Your task to perform on an android device: change the clock display to show seconds Image 0: 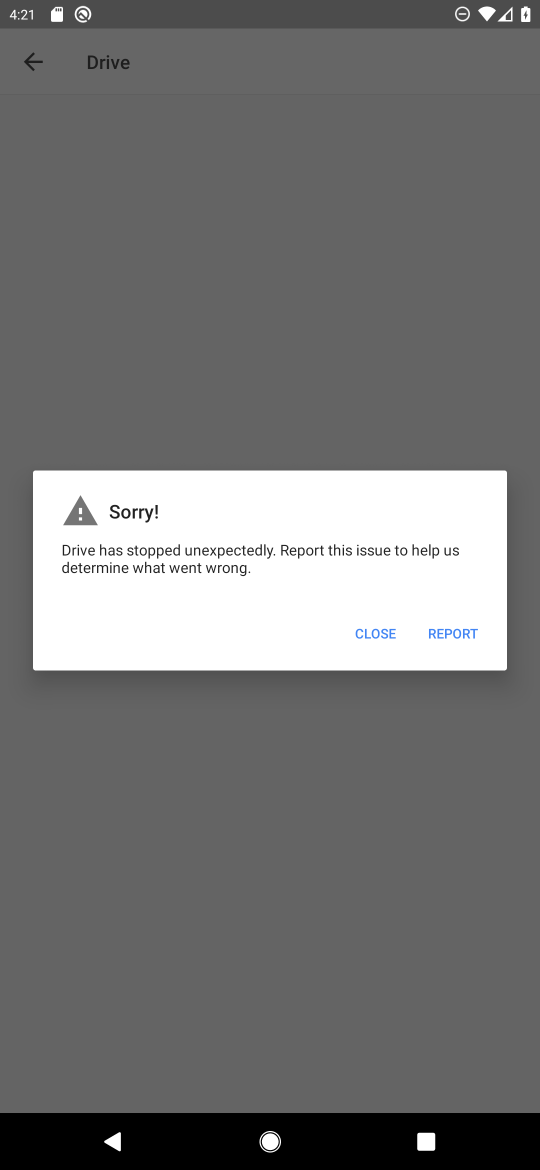
Step 0: press home button
Your task to perform on an android device: change the clock display to show seconds Image 1: 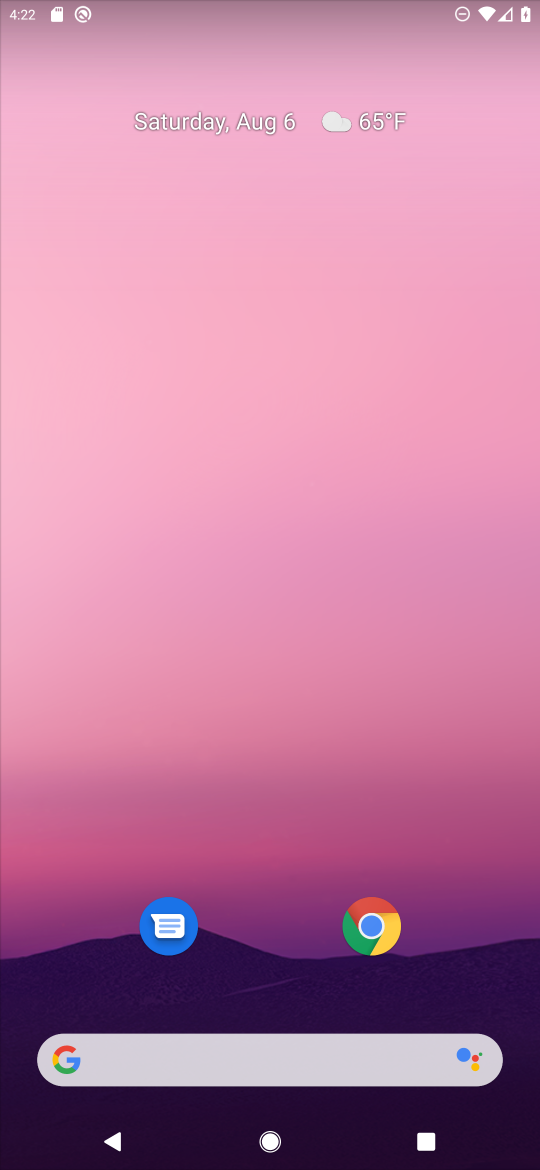
Step 1: drag from (259, 911) to (259, 437)
Your task to perform on an android device: change the clock display to show seconds Image 2: 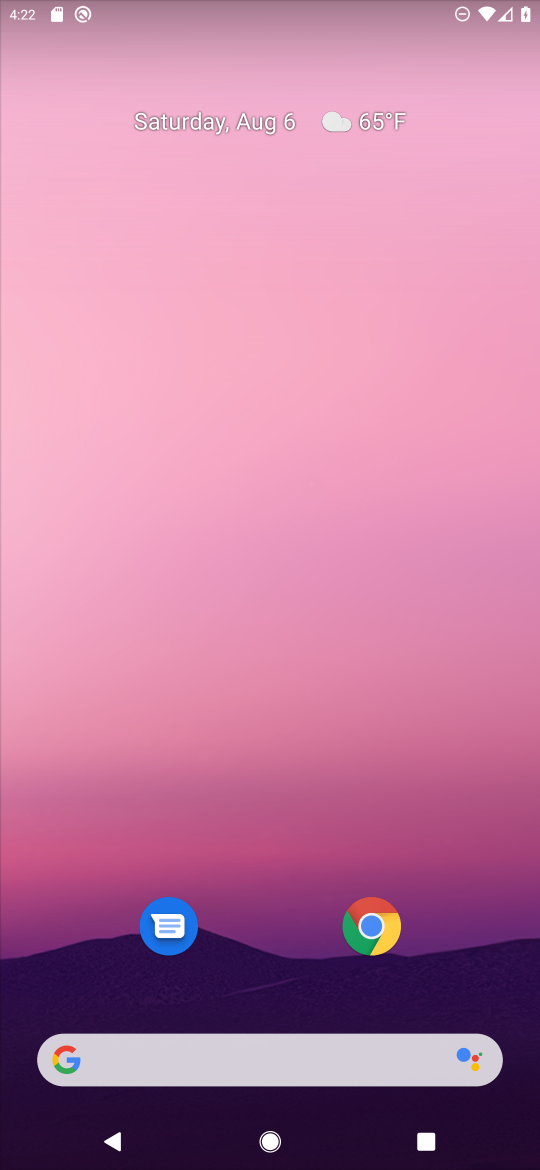
Step 2: drag from (248, 911) to (248, 254)
Your task to perform on an android device: change the clock display to show seconds Image 3: 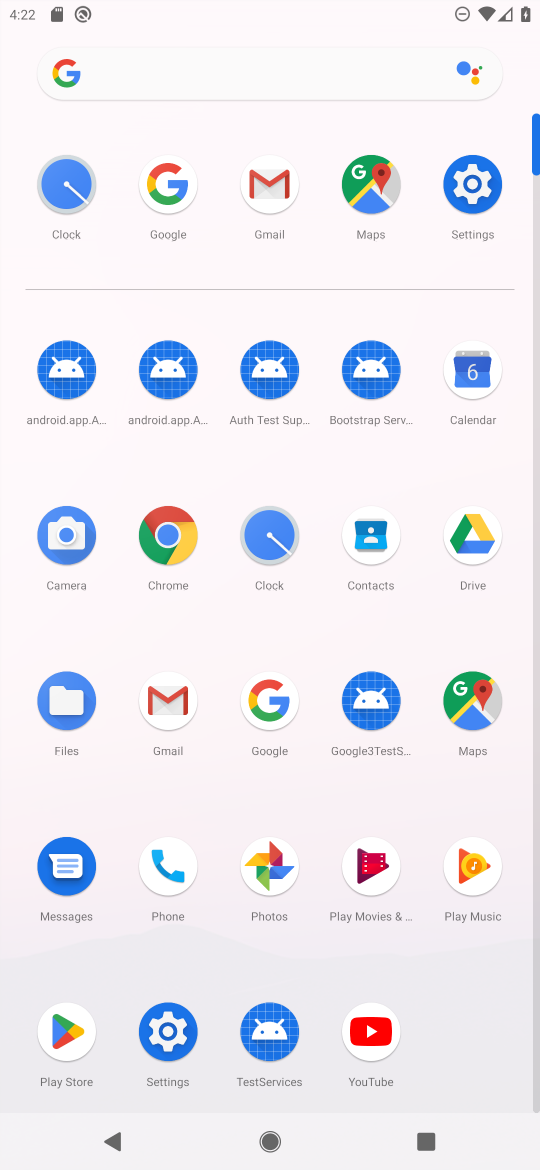
Step 3: click (275, 539)
Your task to perform on an android device: change the clock display to show seconds Image 4: 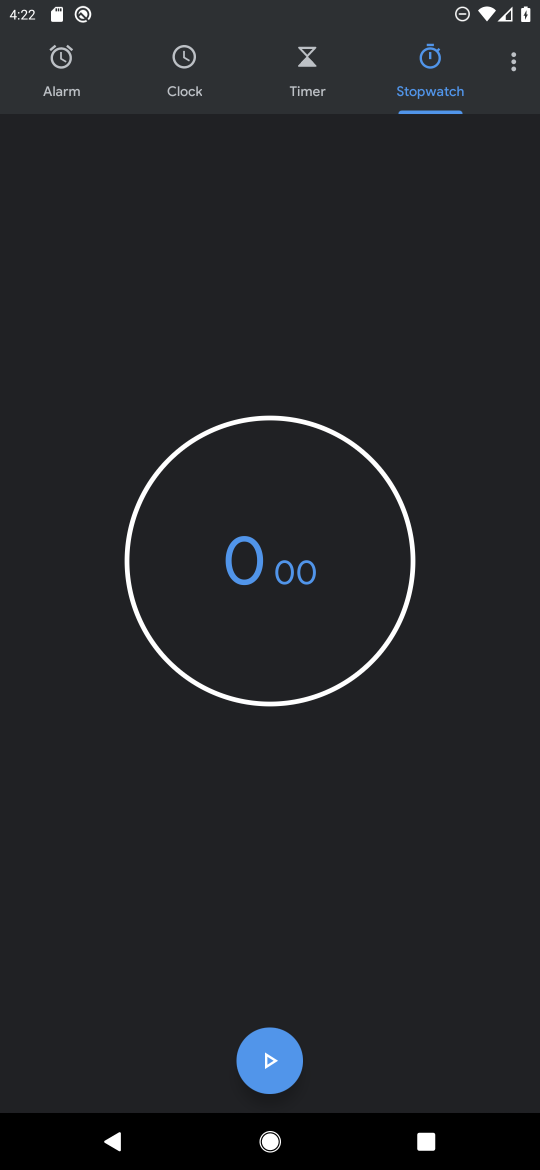
Step 4: click (509, 63)
Your task to perform on an android device: change the clock display to show seconds Image 5: 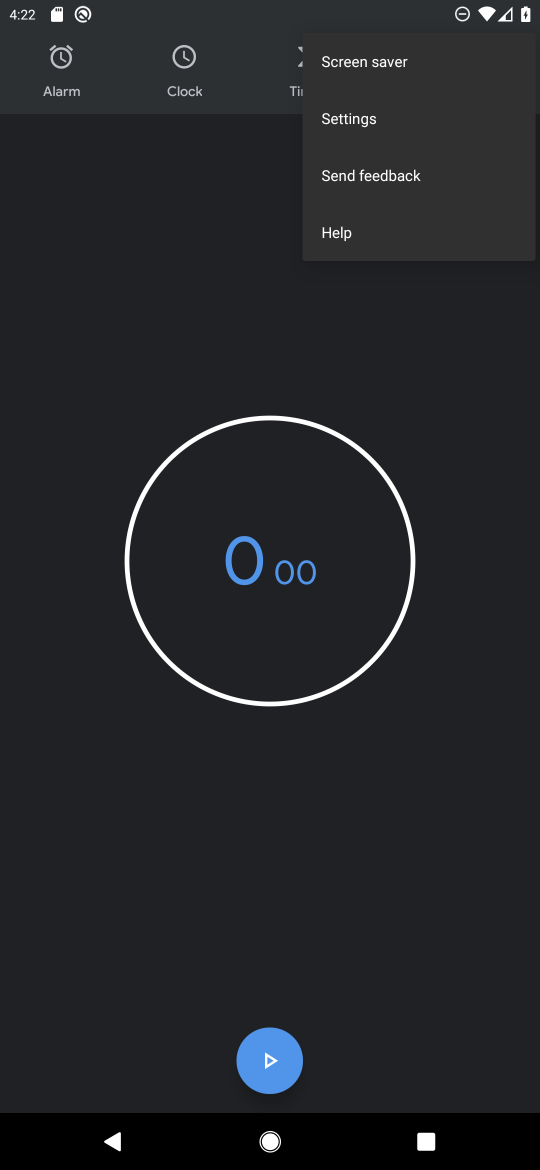
Step 5: click (395, 118)
Your task to perform on an android device: change the clock display to show seconds Image 6: 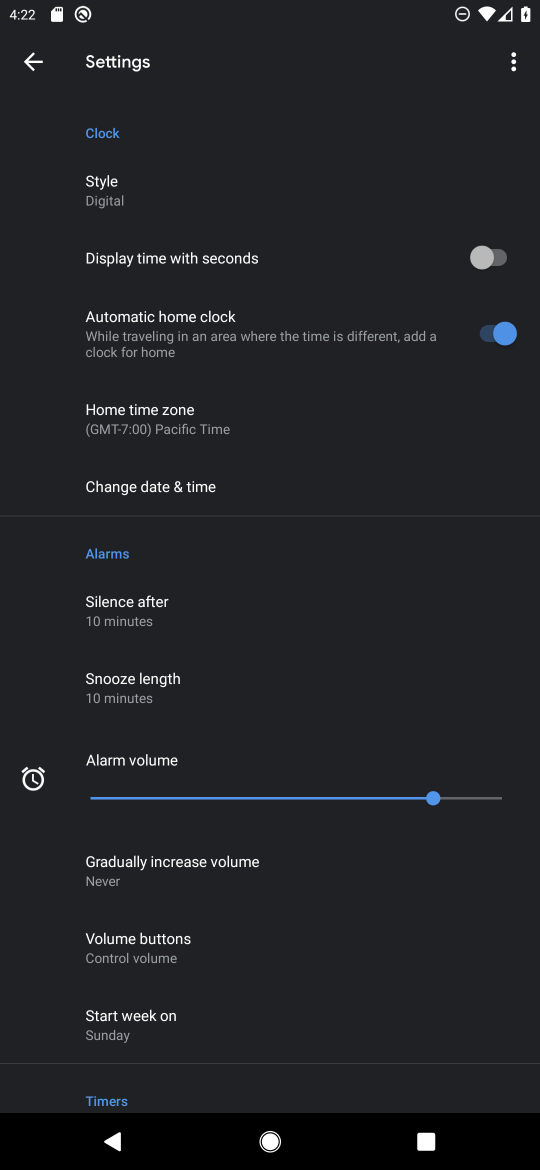
Step 6: click (486, 256)
Your task to perform on an android device: change the clock display to show seconds Image 7: 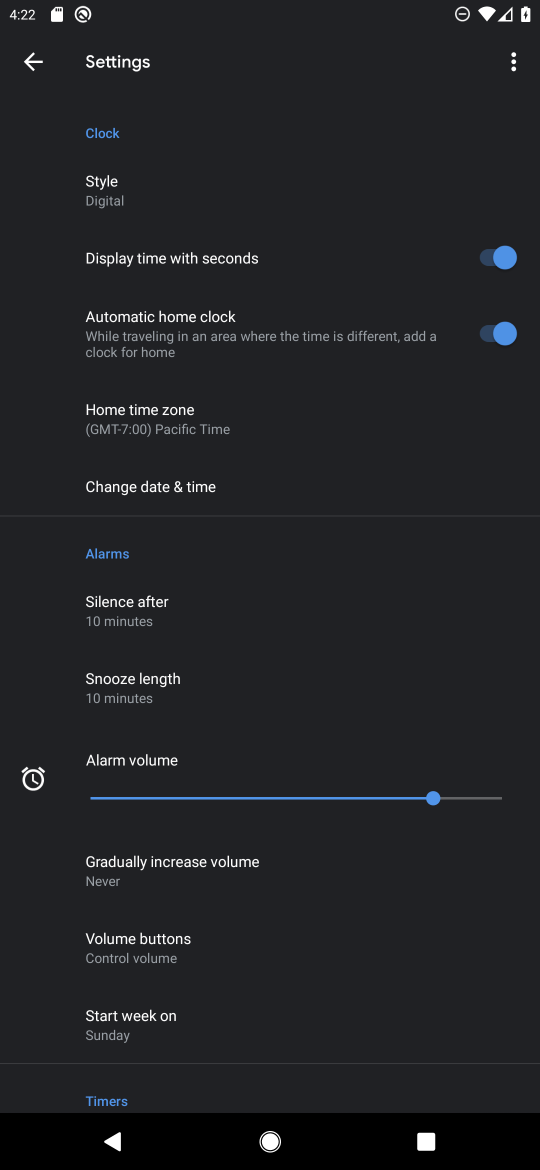
Step 7: task complete